Your task to perform on an android device: Open ESPN.com Image 0: 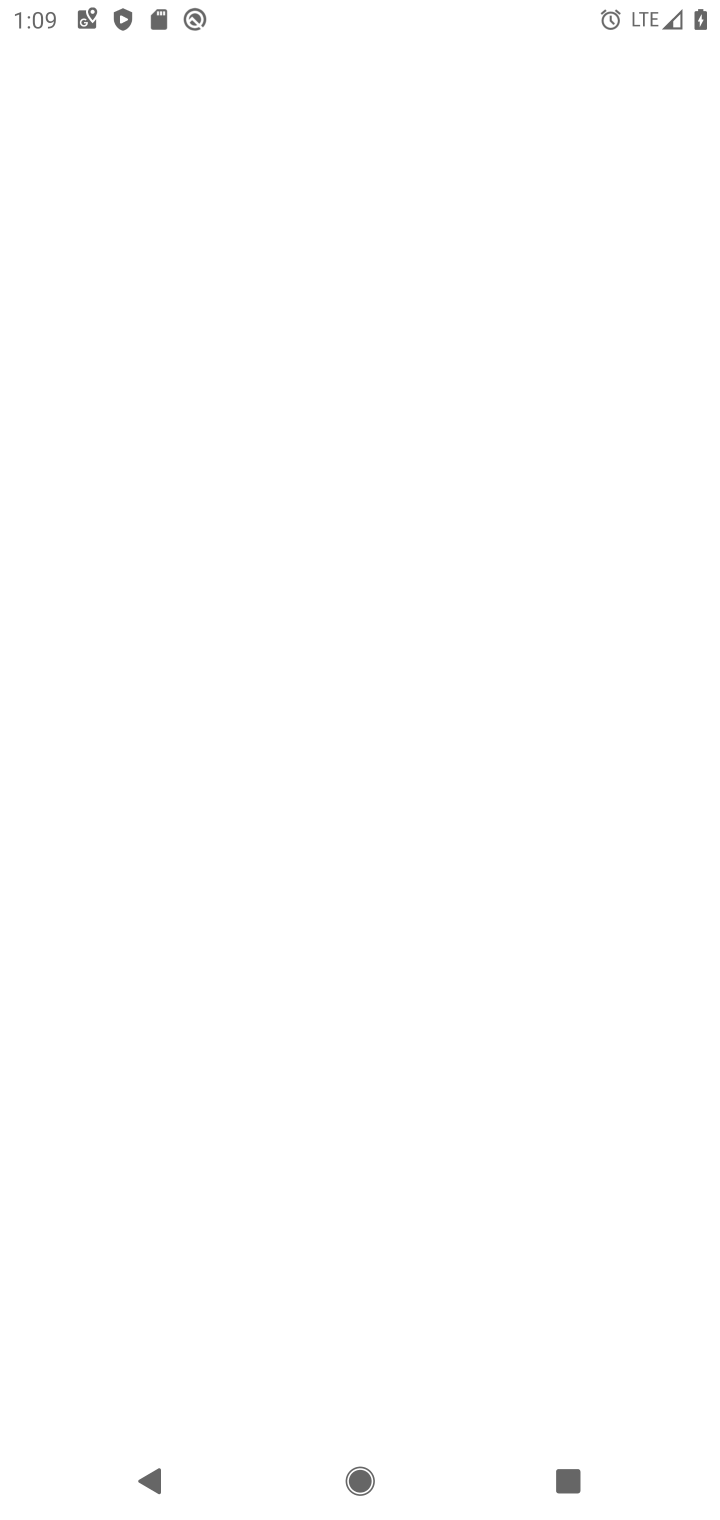
Step 0: press home button
Your task to perform on an android device: Open ESPN.com Image 1: 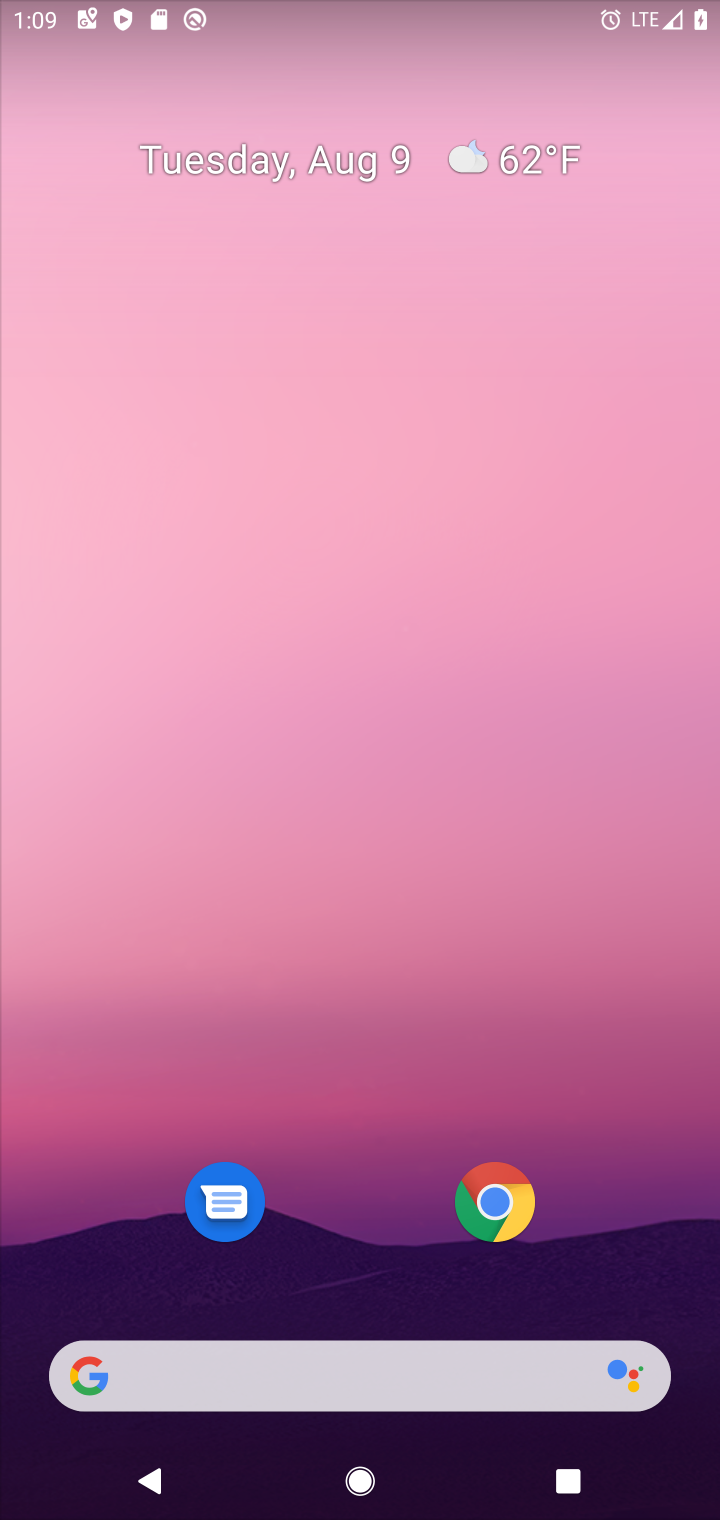
Step 1: click (495, 1215)
Your task to perform on an android device: Open ESPN.com Image 2: 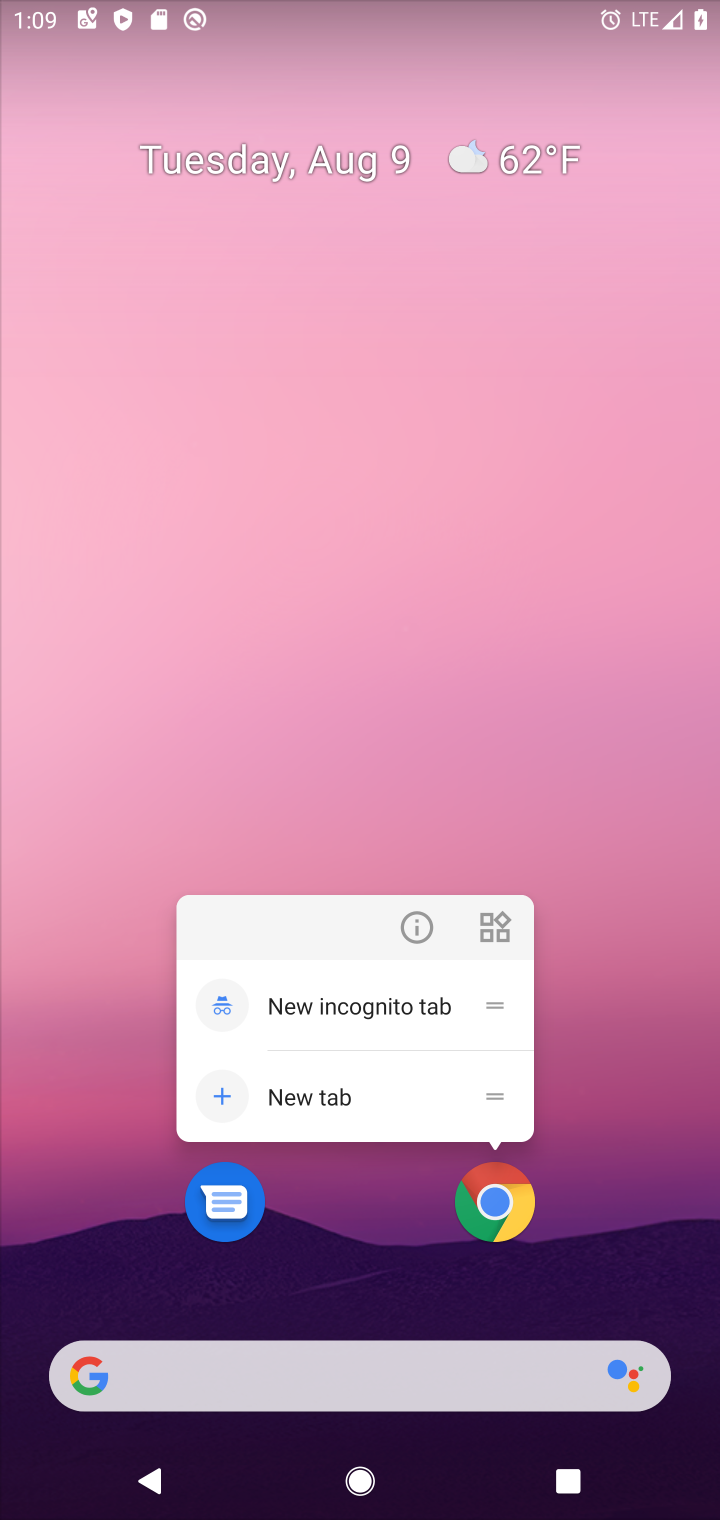
Step 2: click (495, 1215)
Your task to perform on an android device: Open ESPN.com Image 3: 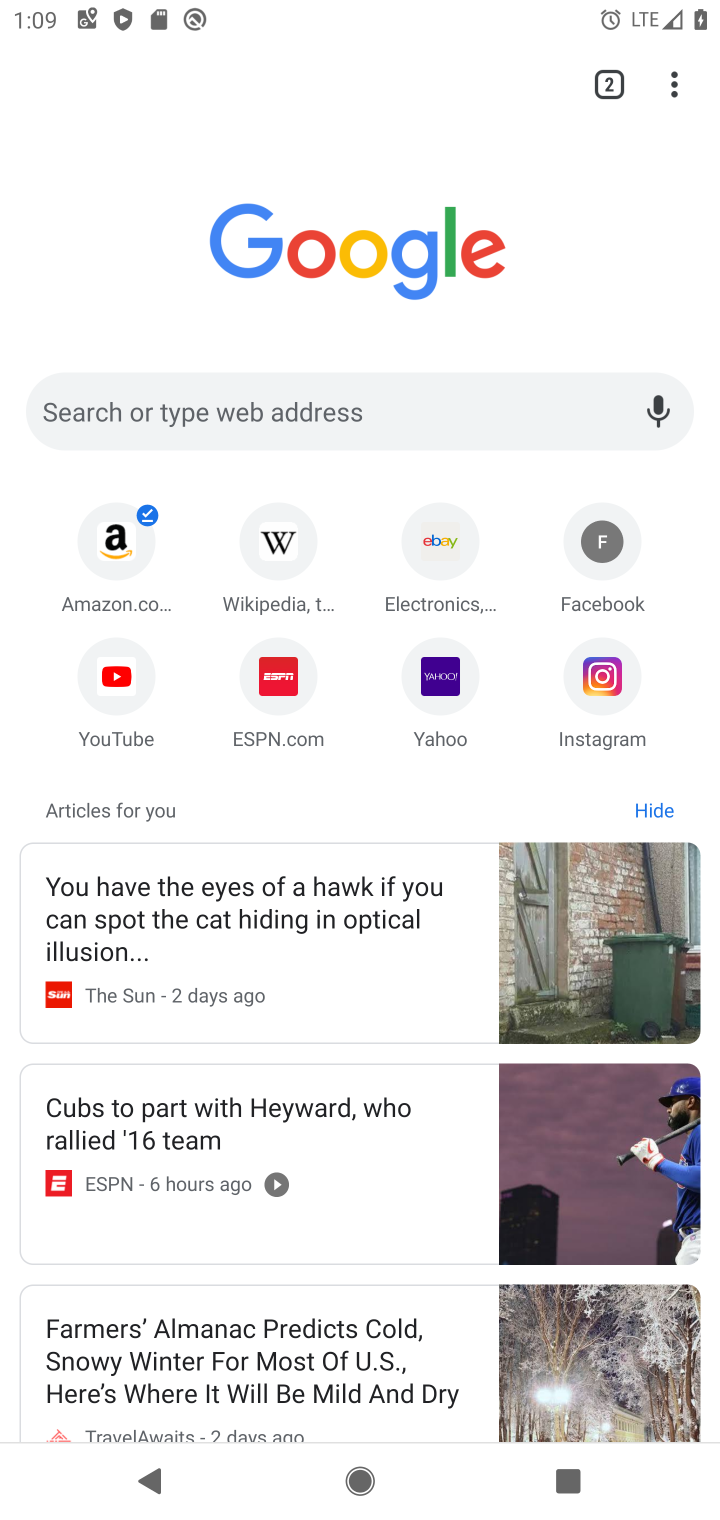
Step 3: click (284, 732)
Your task to perform on an android device: Open ESPN.com Image 4: 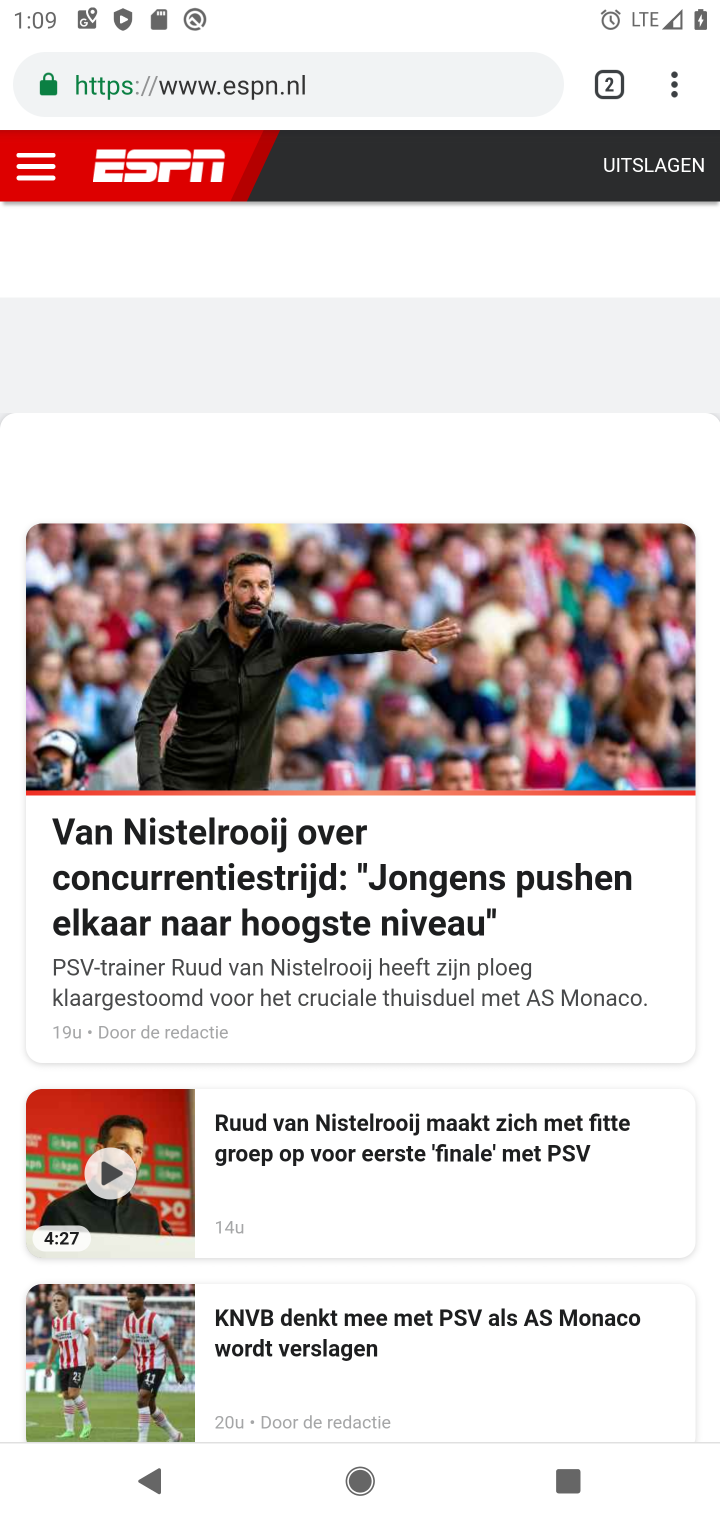
Step 4: task complete